Your task to perform on an android device: allow notifications from all sites in the chrome app Image 0: 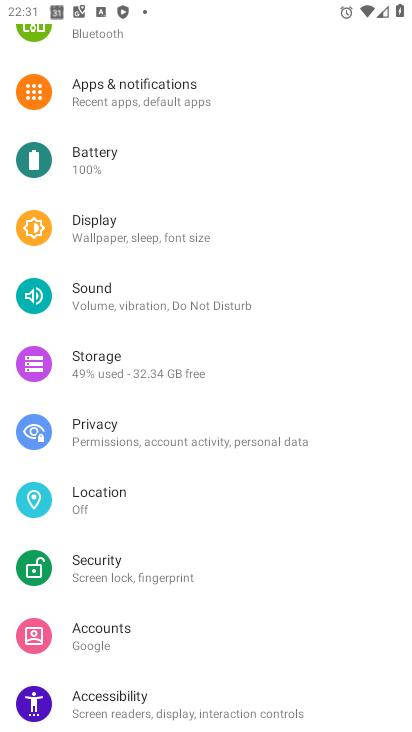
Step 0: press home button
Your task to perform on an android device: allow notifications from all sites in the chrome app Image 1: 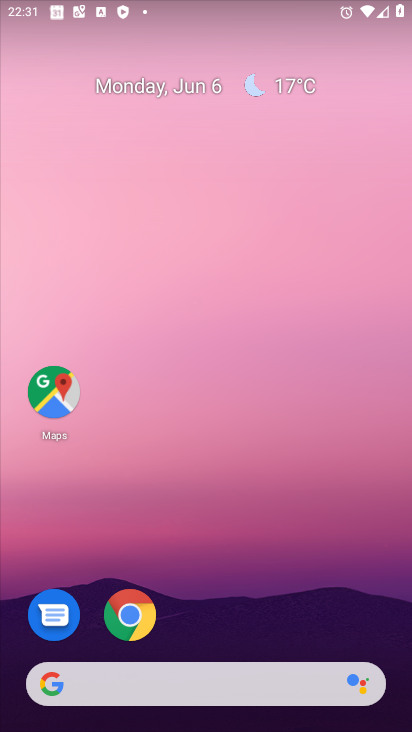
Step 1: click (126, 603)
Your task to perform on an android device: allow notifications from all sites in the chrome app Image 2: 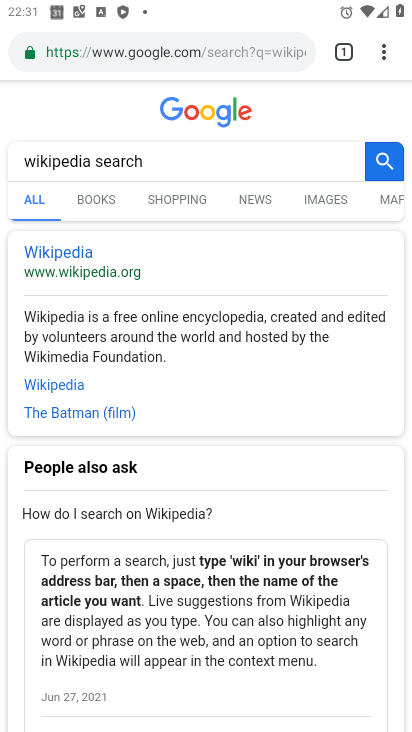
Step 2: click (381, 52)
Your task to perform on an android device: allow notifications from all sites in the chrome app Image 3: 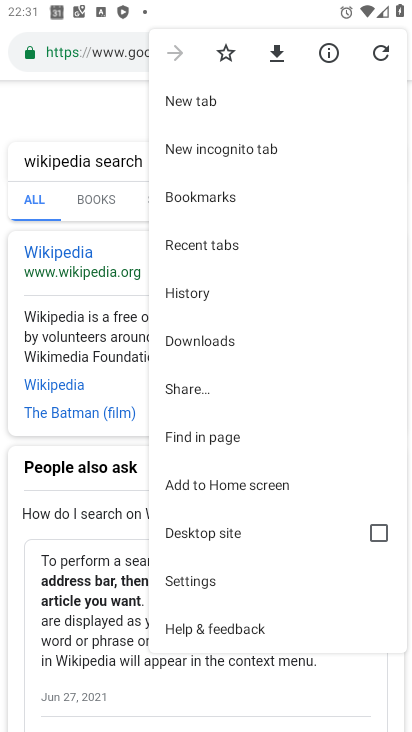
Step 3: click (184, 576)
Your task to perform on an android device: allow notifications from all sites in the chrome app Image 4: 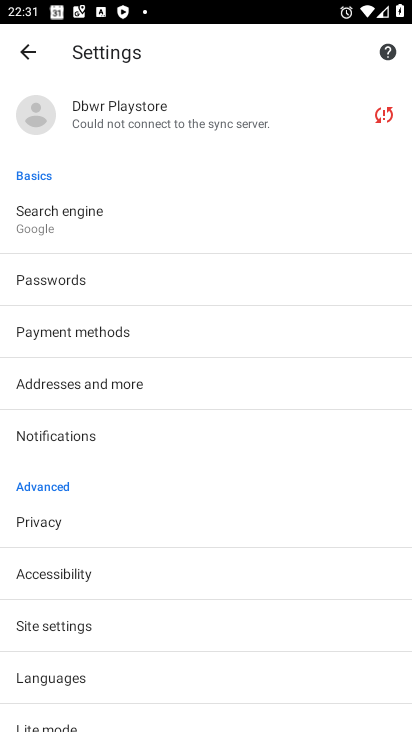
Step 4: click (82, 630)
Your task to perform on an android device: allow notifications from all sites in the chrome app Image 5: 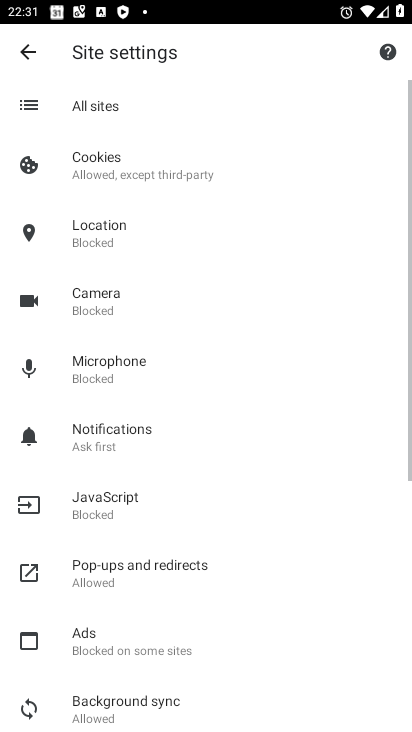
Step 5: click (103, 430)
Your task to perform on an android device: allow notifications from all sites in the chrome app Image 6: 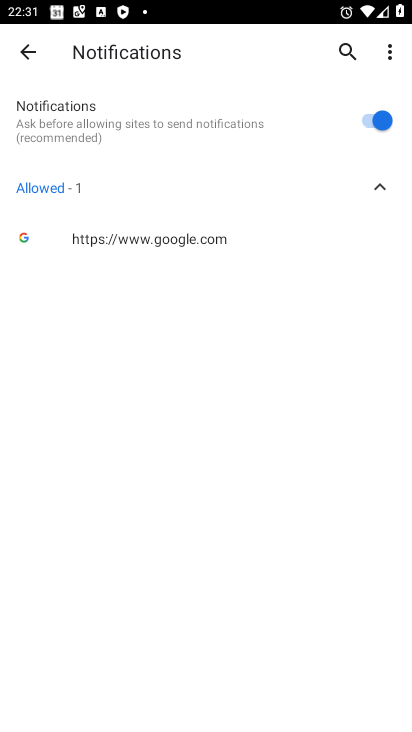
Step 6: task complete